Your task to perform on an android device: open app "ColorNote Notepad Notes" (install if not already installed) Image 0: 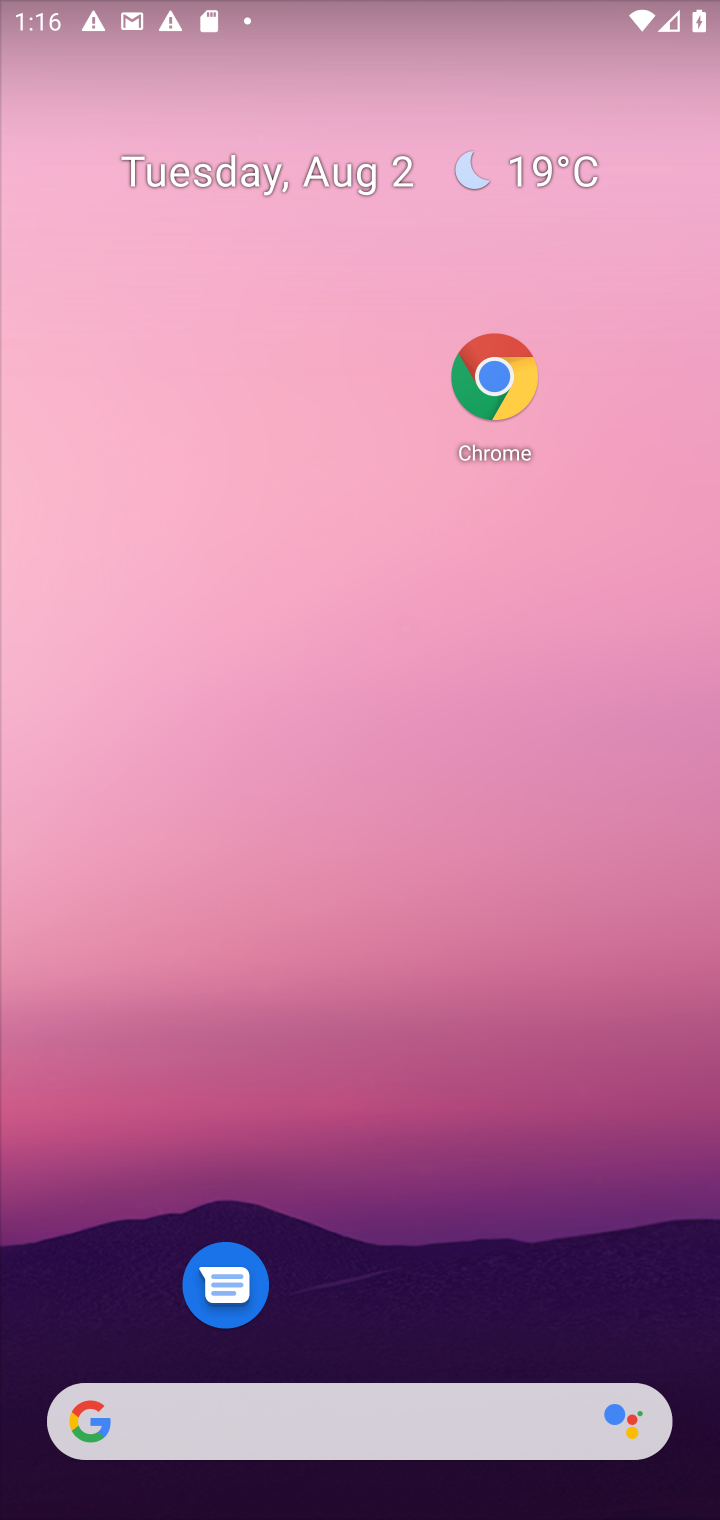
Step 0: drag from (492, 1003) to (704, 254)
Your task to perform on an android device: open app "ColorNote Notepad Notes" (install if not already installed) Image 1: 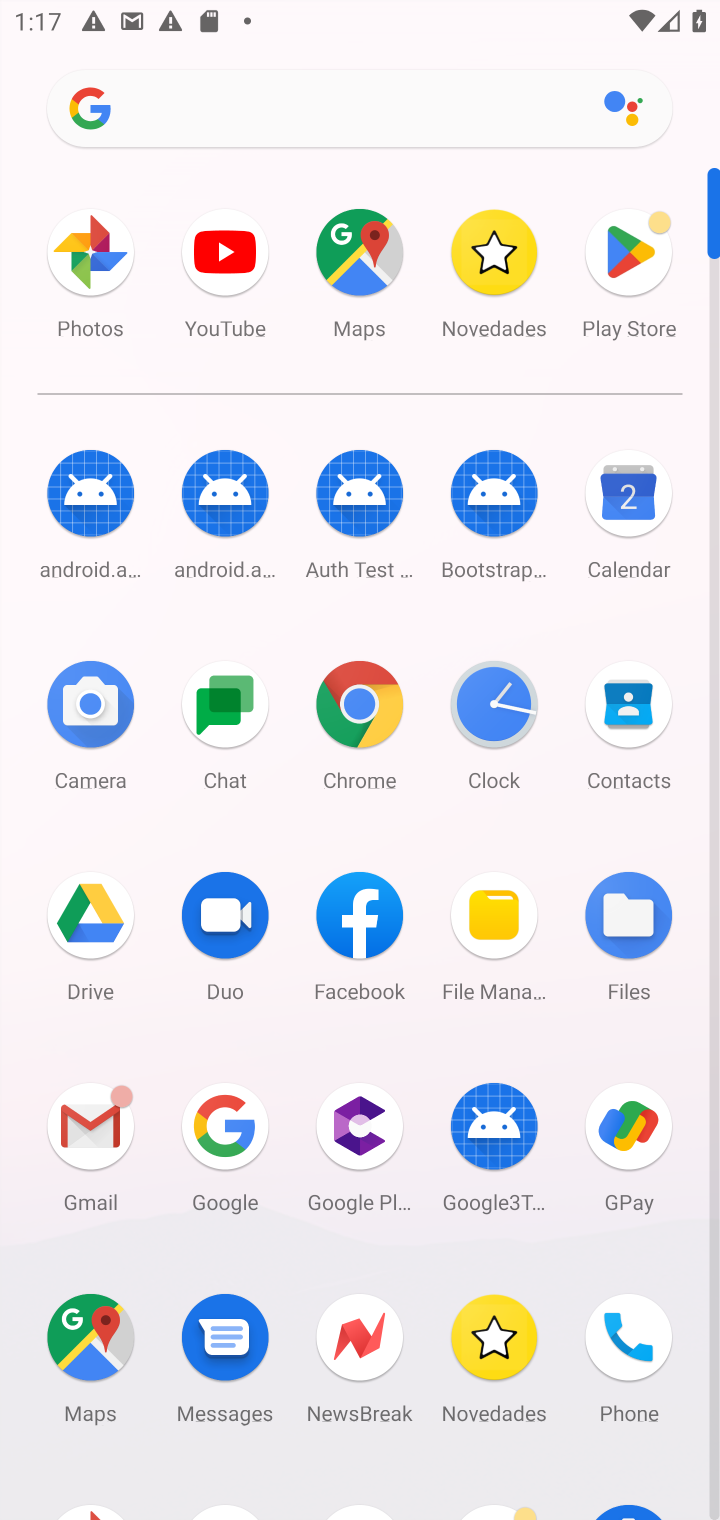
Step 1: press home button
Your task to perform on an android device: open app "ColorNote Notepad Notes" (install if not already installed) Image 2: 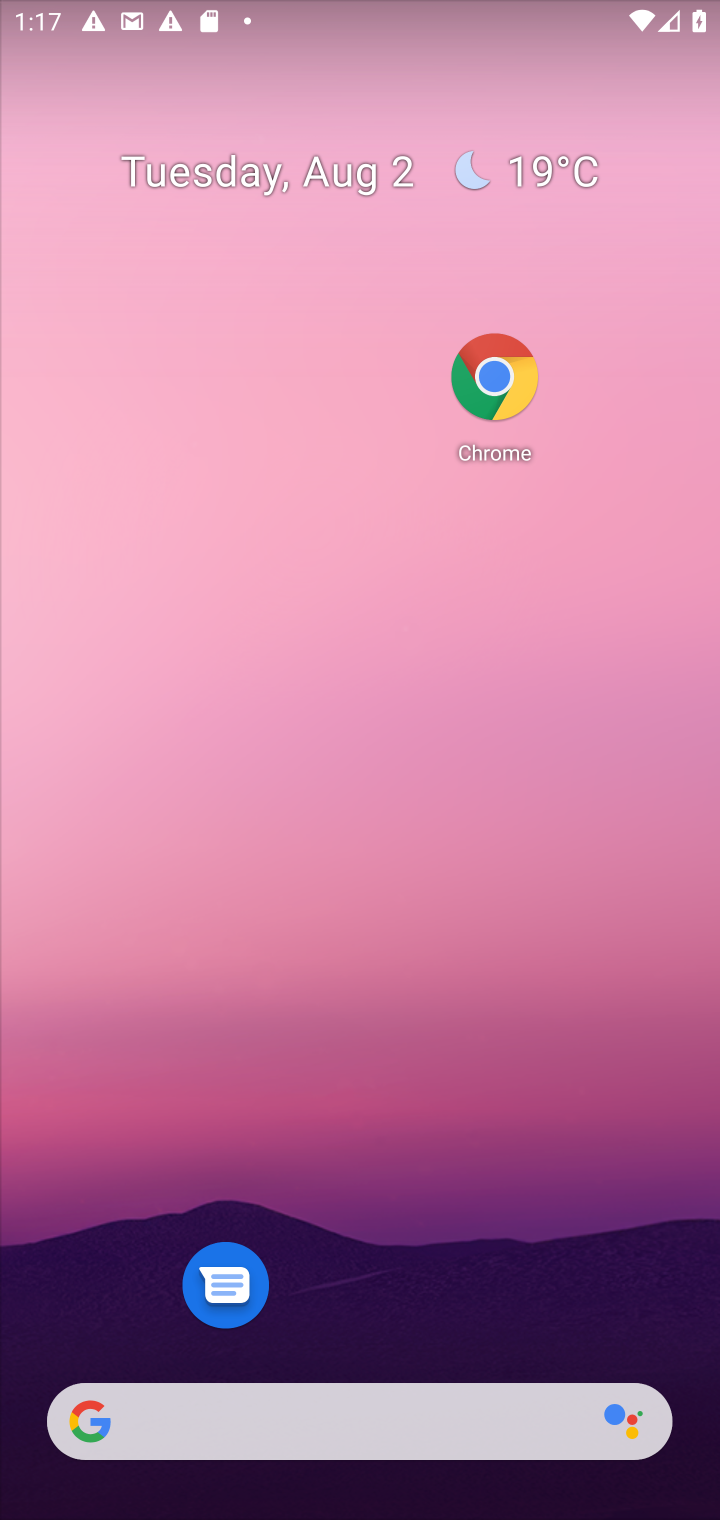
Step 2: drag from (394, 1256) to (404, 1069)
Your task to perform on an android device: open app "ColorNote Notepad Notes" (install if not already installed) Image 3: 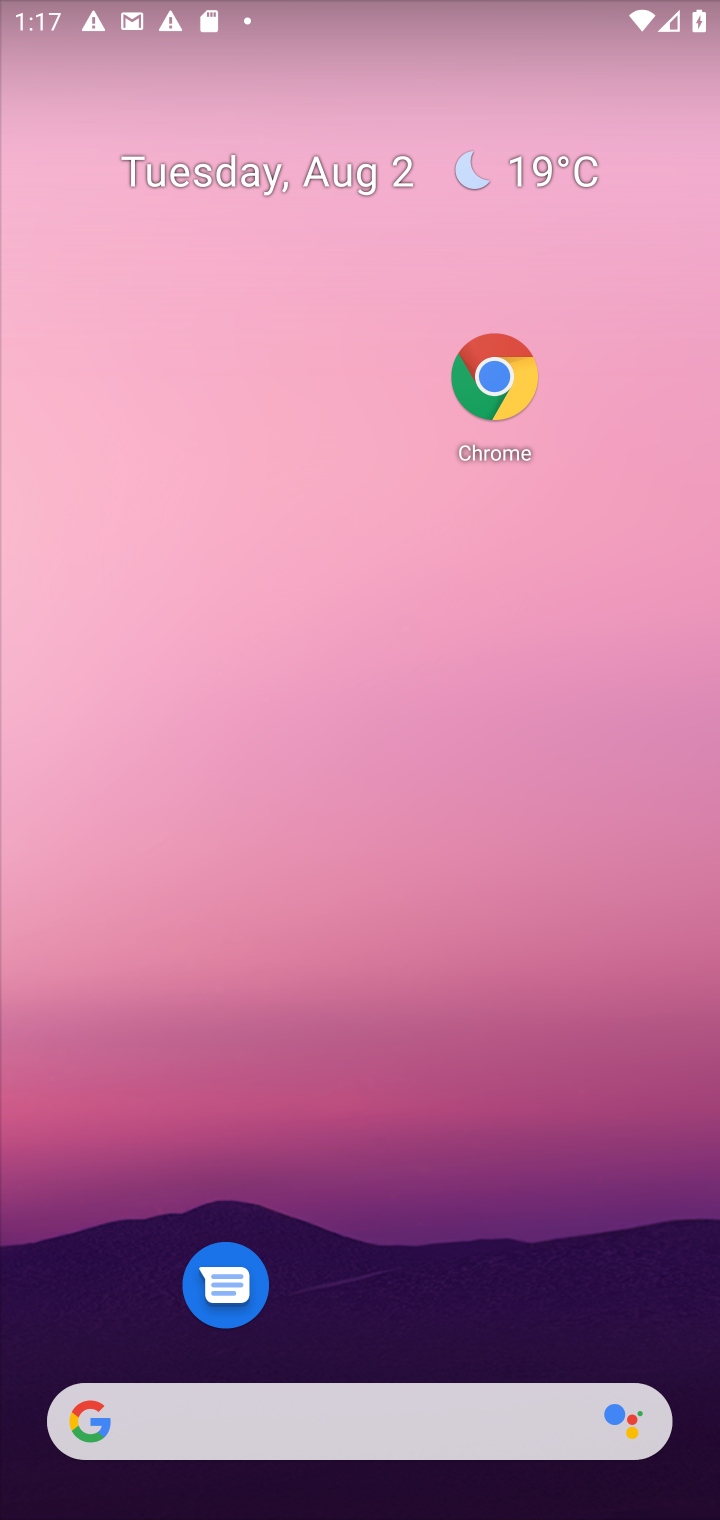
Step 3: drag from (454, 1316) to (450, 962)
Your task to perform on an android device: open app "ColorNote Notepad Notes" (install if not already installed) Image 4: 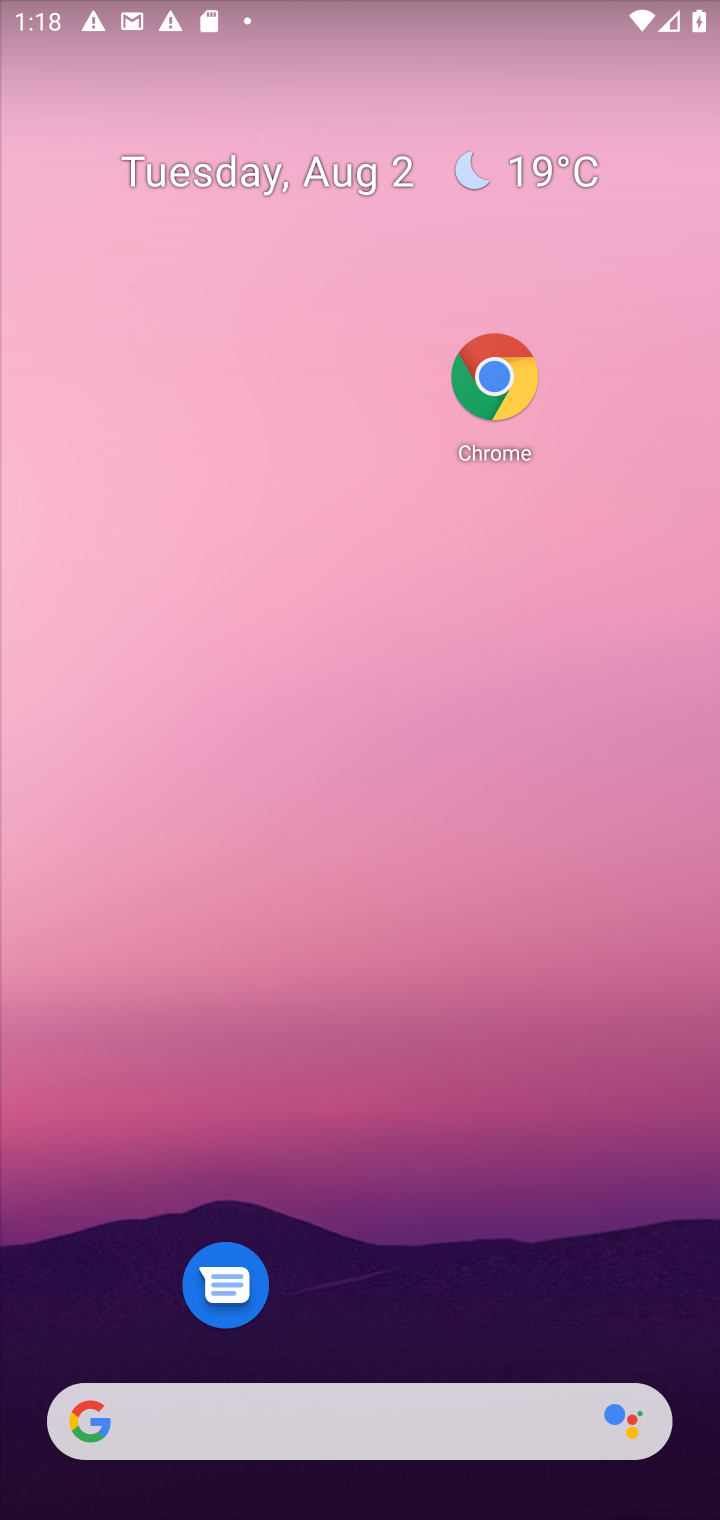
Step 4: drag from (546, 663) to (337, 215)
Your task to perform on an android device: open app "ColorNote Notepad Notes" (install if not already installed) Image 5: 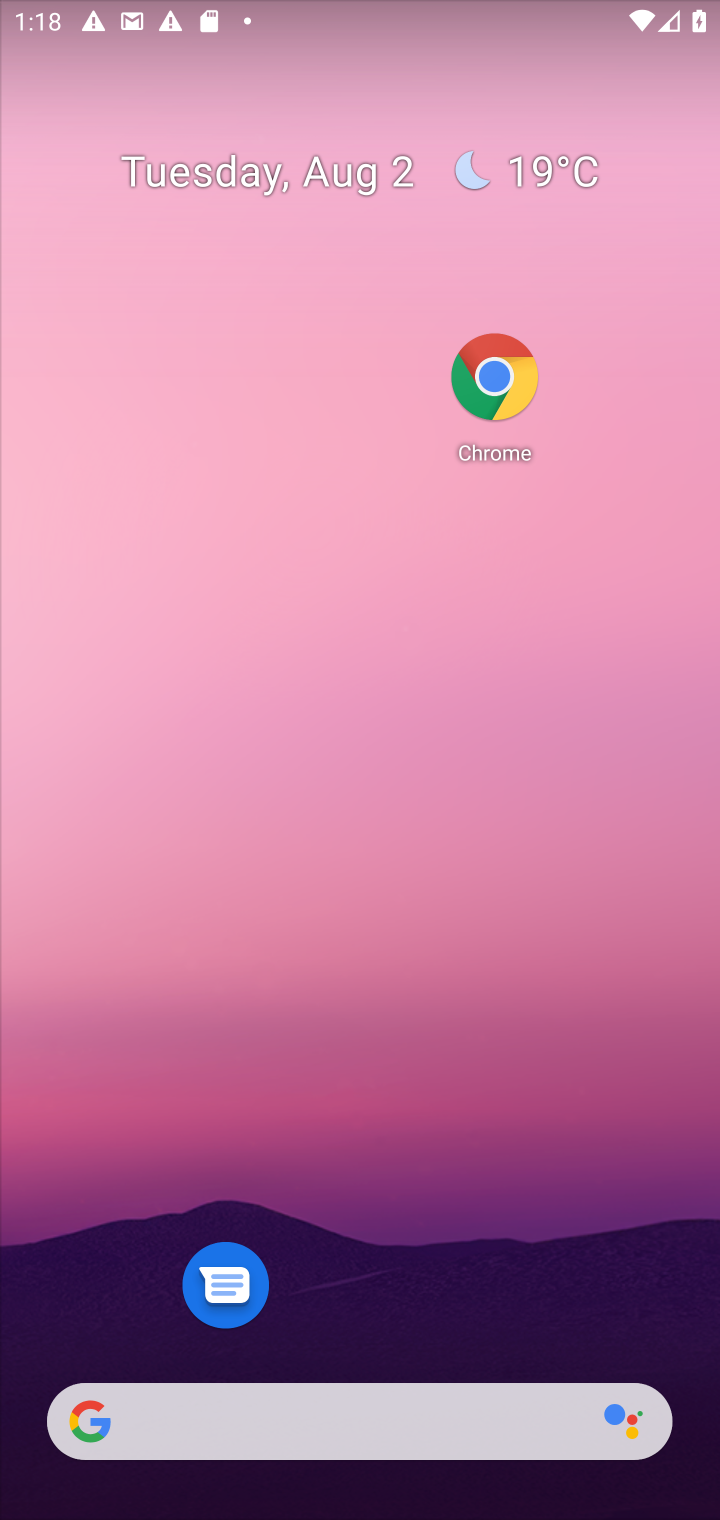
Step 5: drag from (425, 864) to (593, 20)
Your task to perform on an android device: open app "ColorNote Notepad Notes" (install if not already installed) Image 6: 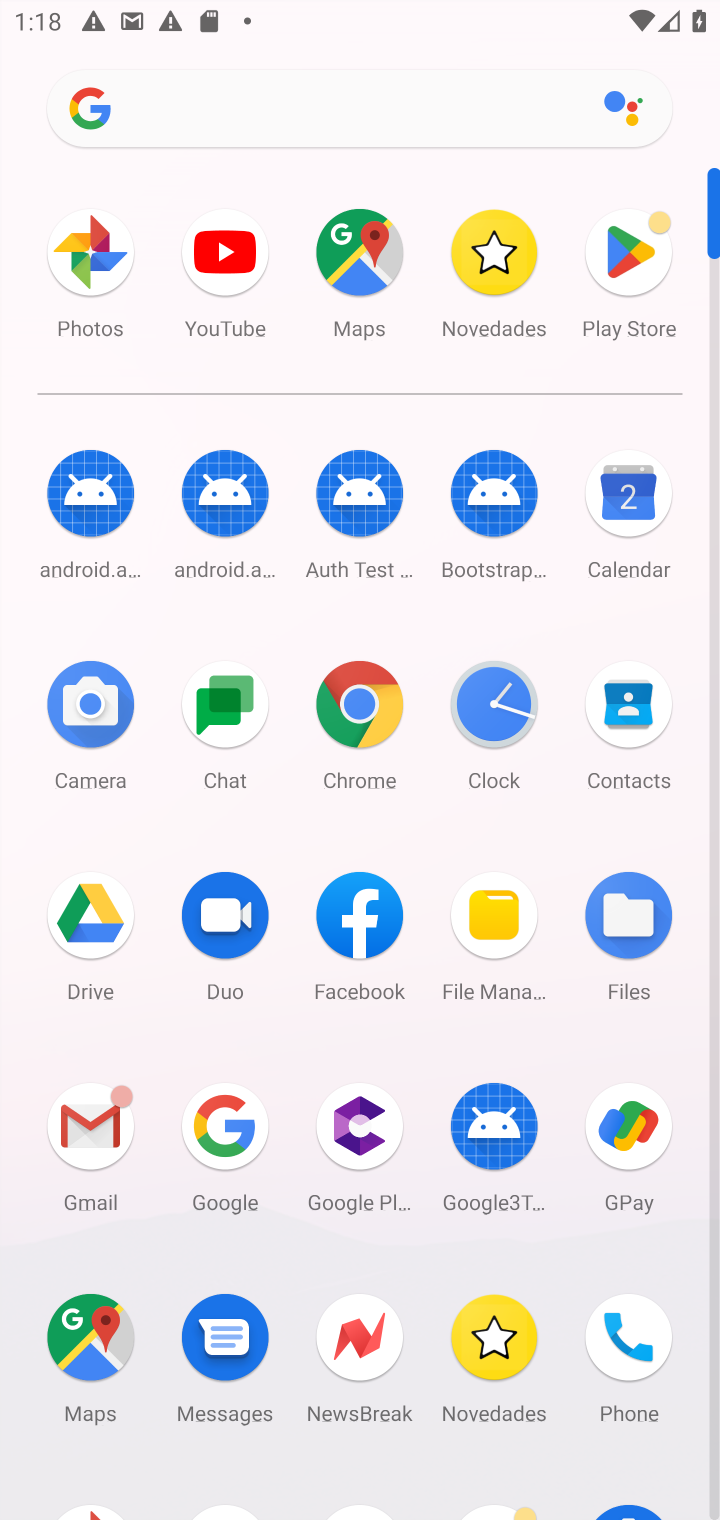
Step 6: click (635, 260)
Your task to perform on an android device: open app "ColorNote Notepad Notes" (install if not already installed) Image 7: 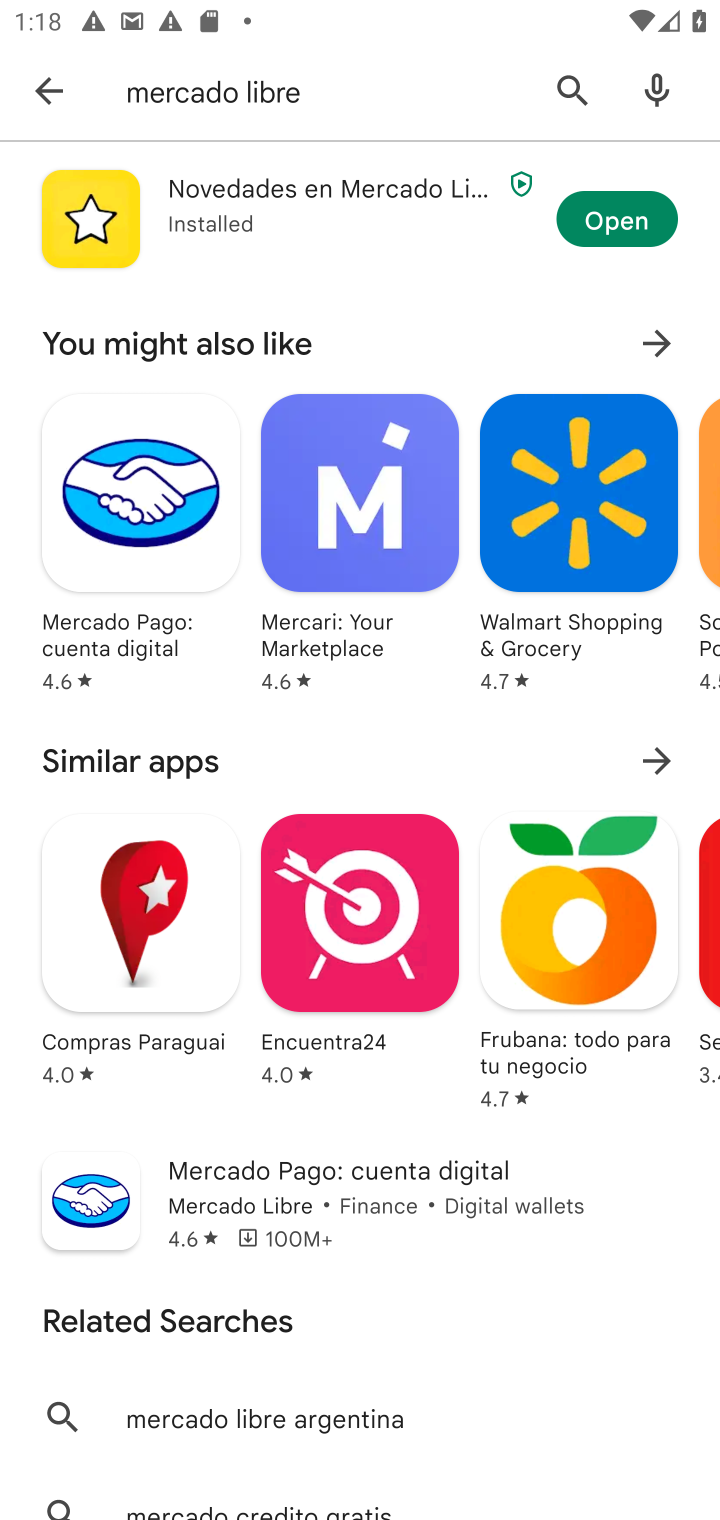
Step 7: click (588, 78)
Your task to perform on an android device: open app "ColorNote Notepad Notes" (install if not already installed) Image 8: 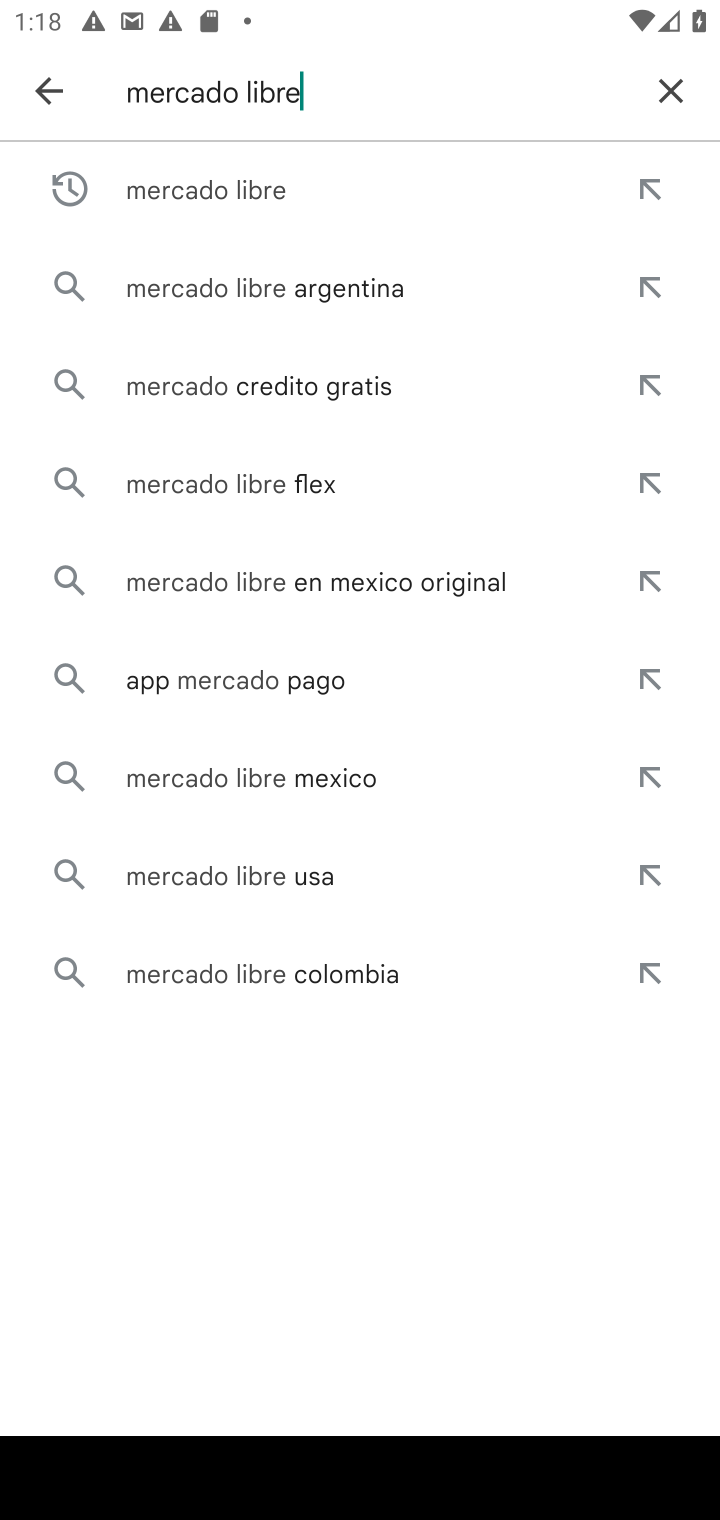
Step 8: click (669, 100)
Your task to perform on an android device: open app "ColorNote Notepad Notes" (install if not already installed) Image 9: 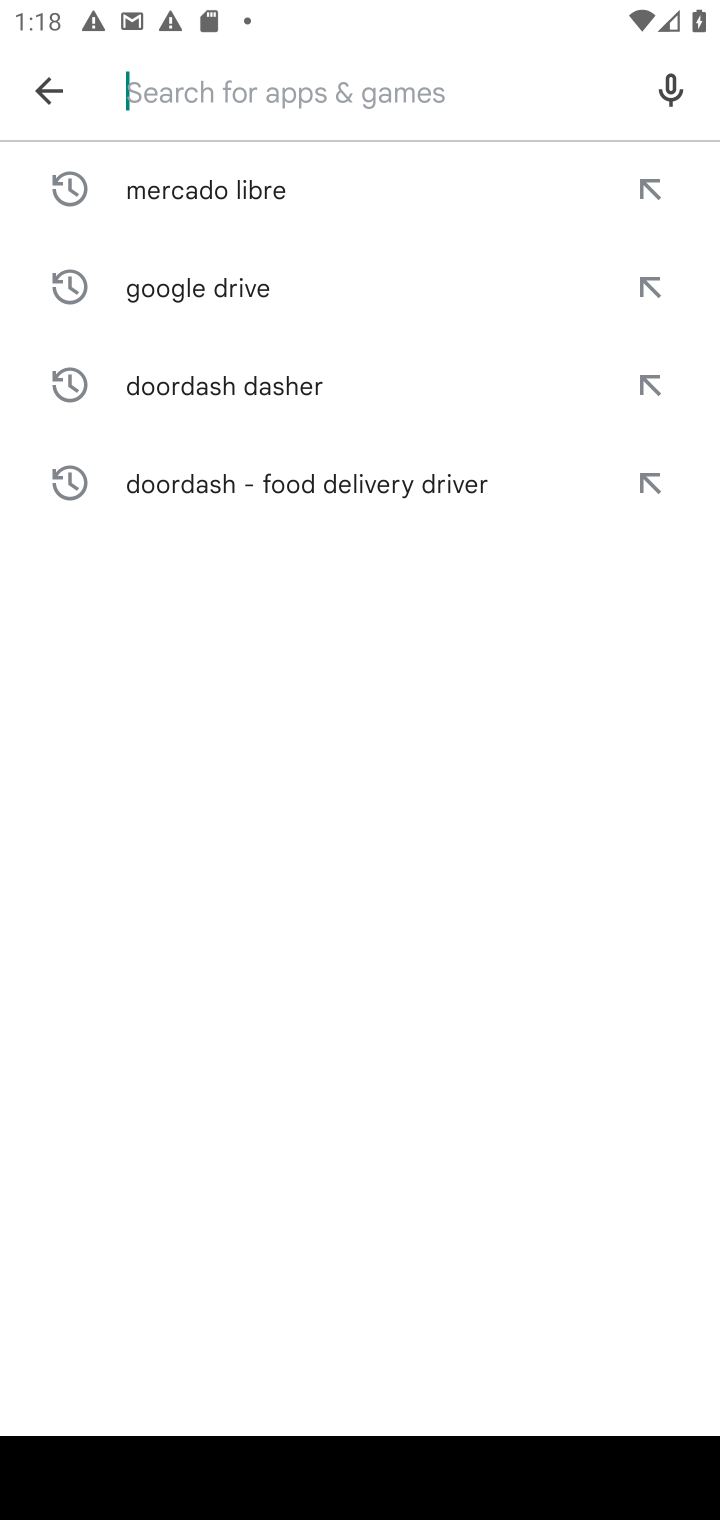
Step 9: type "ColorNote Notepad Notes"
Your task to perform on an android device: open app "ColorNote Notepad Notes" (install if not already installed) Image 10: 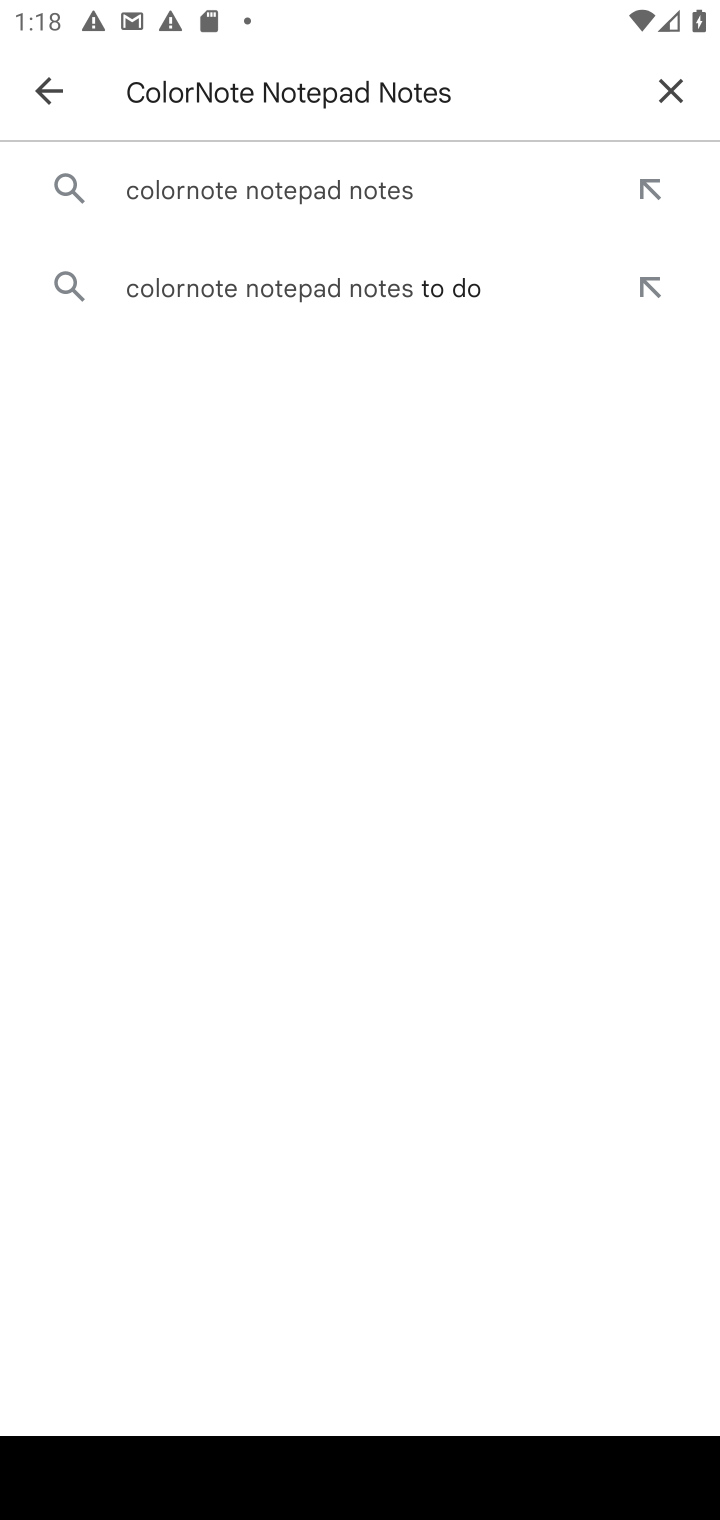
Step 10: click (295, 204)
Your task to perform on an android device: open app "ColorNote Notepad Notes" (install if not already installed) Image 11: 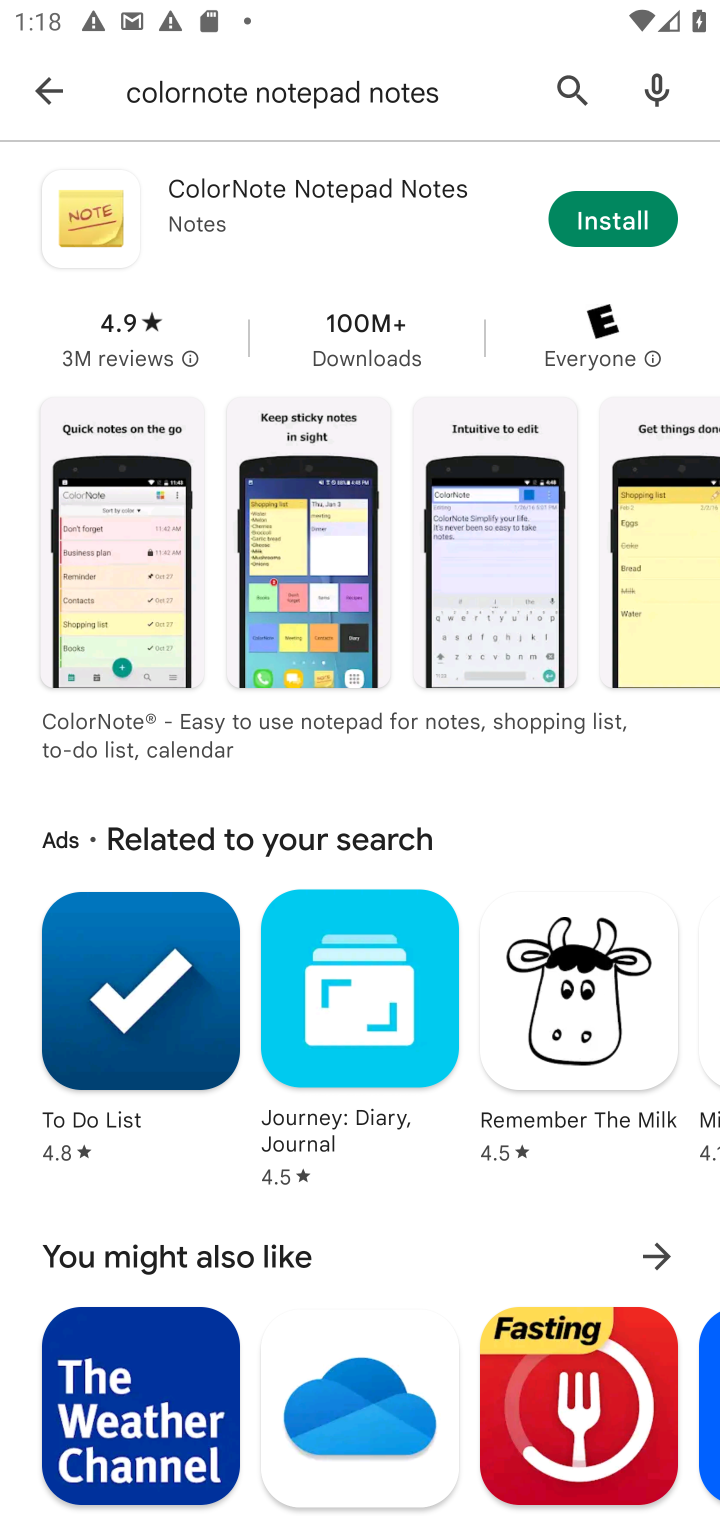
Step 11: click (605, 227)
Your task to perform on an android device: open app "ColorNote Notepad Notes" (install if not already installed) Image 12: 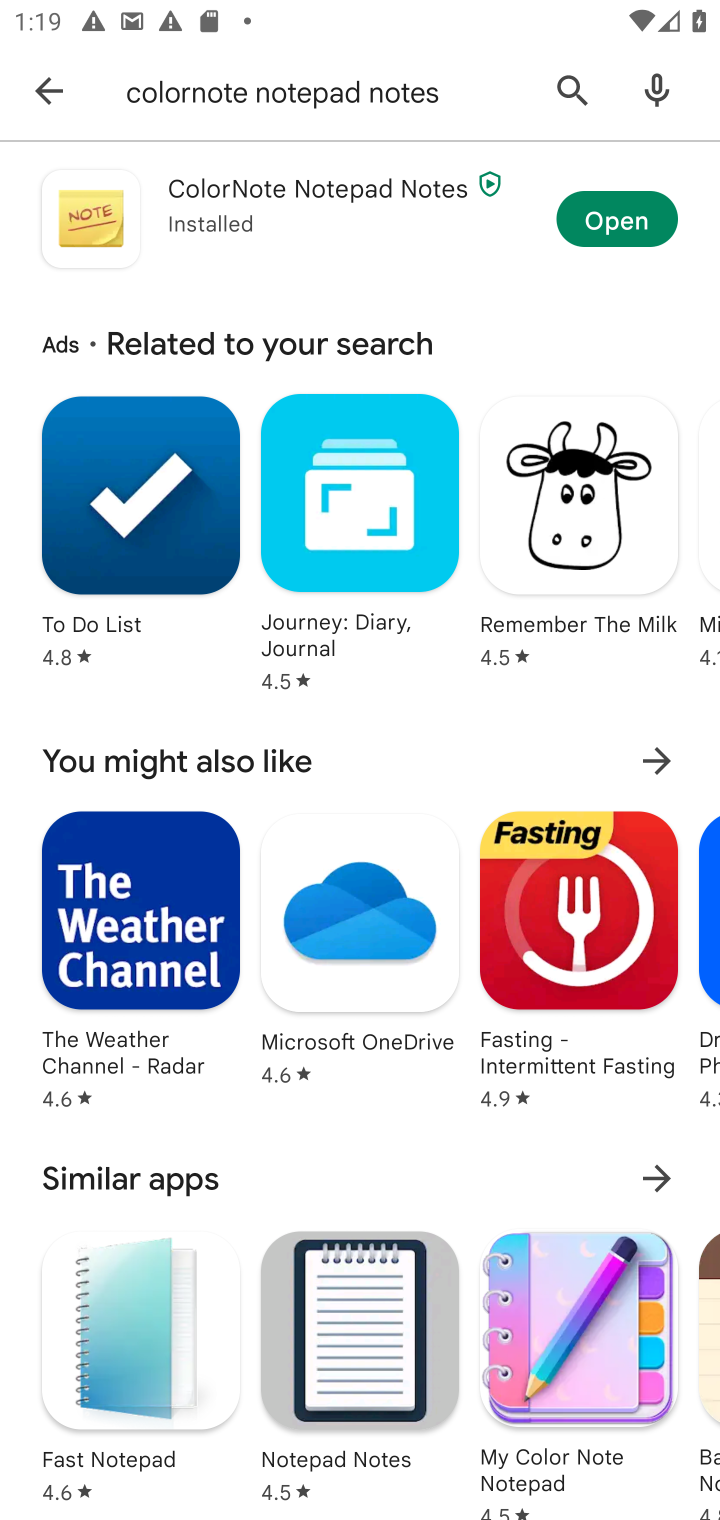
Step 12: click (658, 240)
Your task to perform on an android device: open app "ColorNote Notepad Notes" (install if not already installed) Image 13: 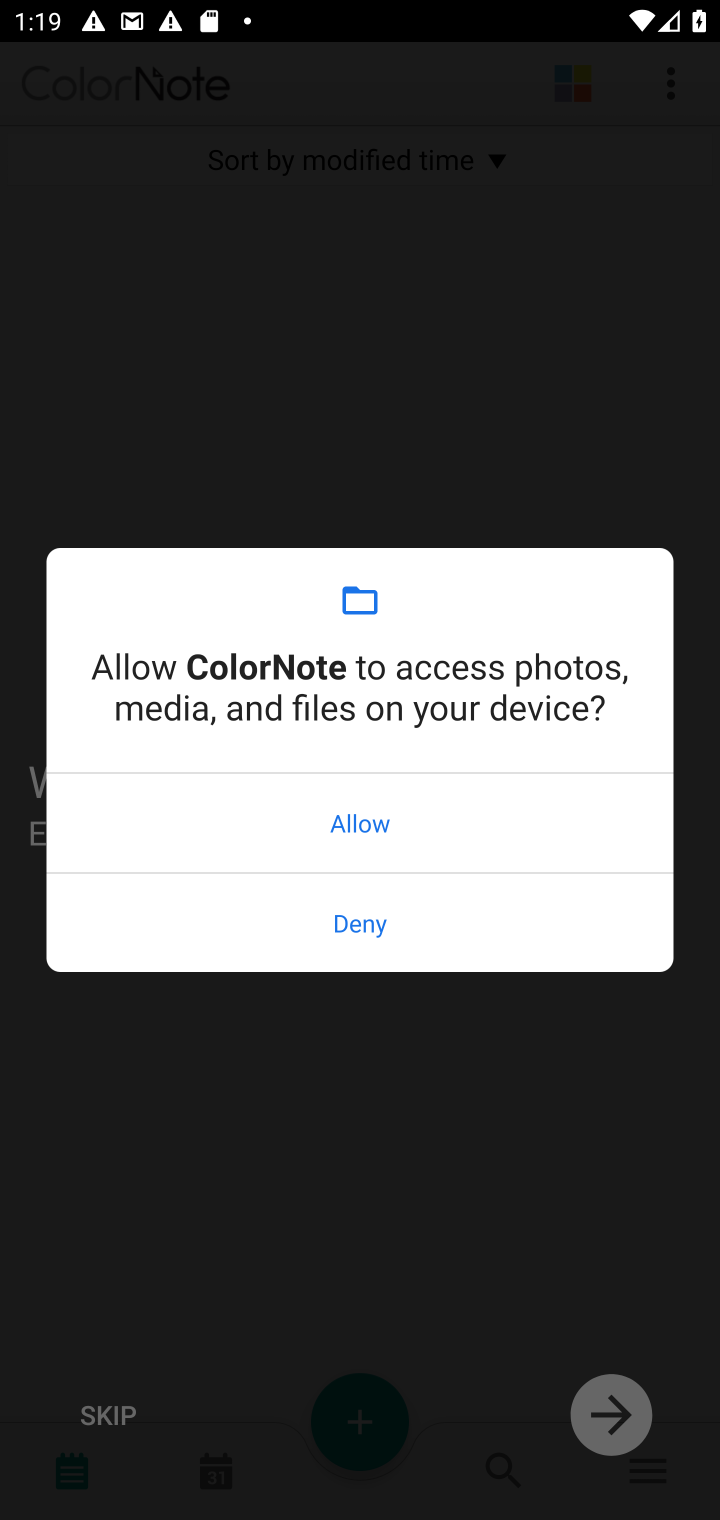
Step 13: task complete